Your task to perform on an android device: Open accessibility settings Image 0: 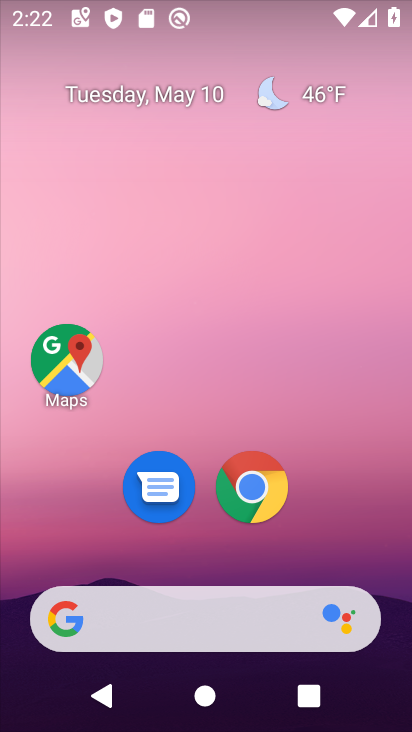
Step 0: drag from (384, 494) to (282, 53)
Your task to perform on an android device: Open accessibility settings Image 1: 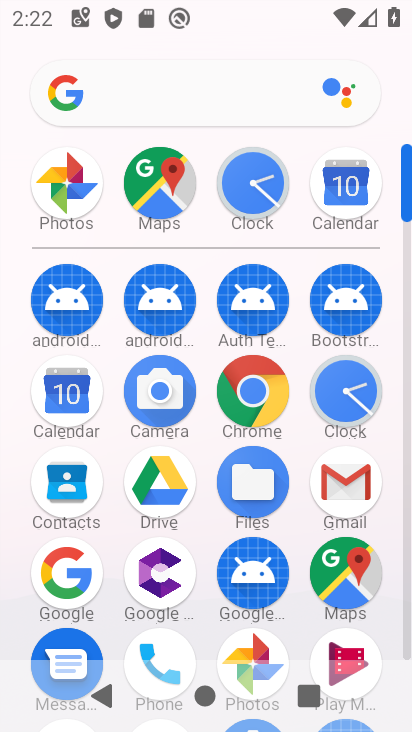
Step 1: drag from (205, 606) to (199, 201)
Your task to perform on an android device: Open accessibility settings Image 2: 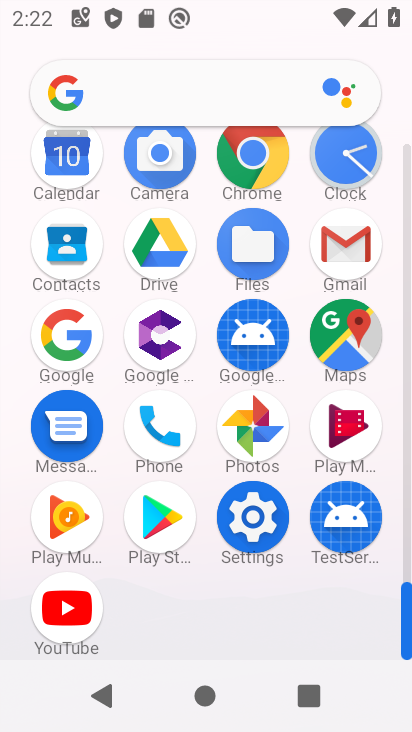
Step 2: click (256, 537)
Your task to perform on an android device: Open accessibility settings Image 3: 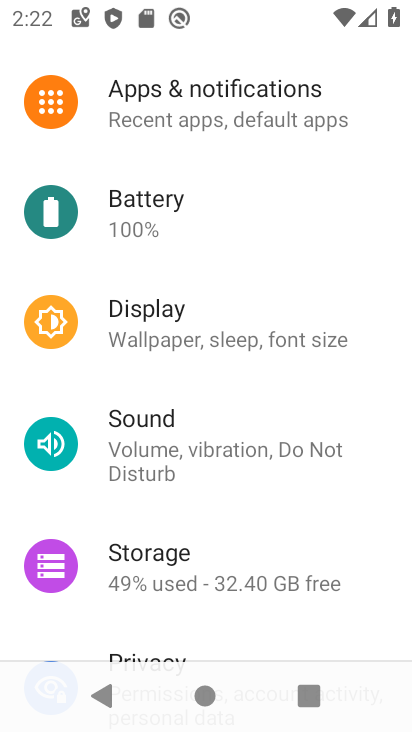
Step 3: drag from (259, 482) to (266, 38)
Your task to perform on an android device: Open accessibility settings Image 4: 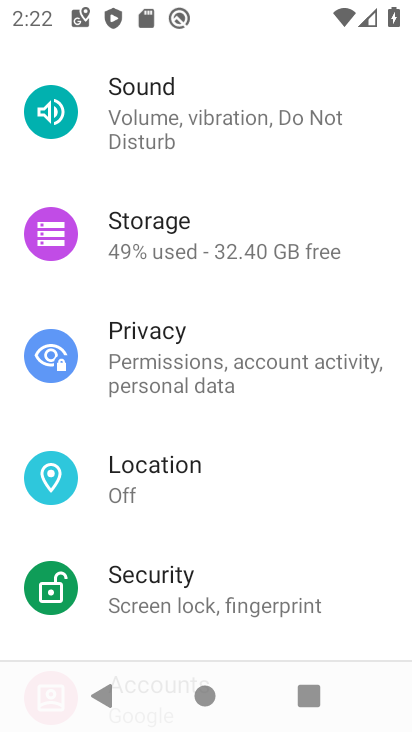
Step 4: drag from (298, 437) to (289, 59)
Your task to perform on an android device: Open accessibility settings Image 5: 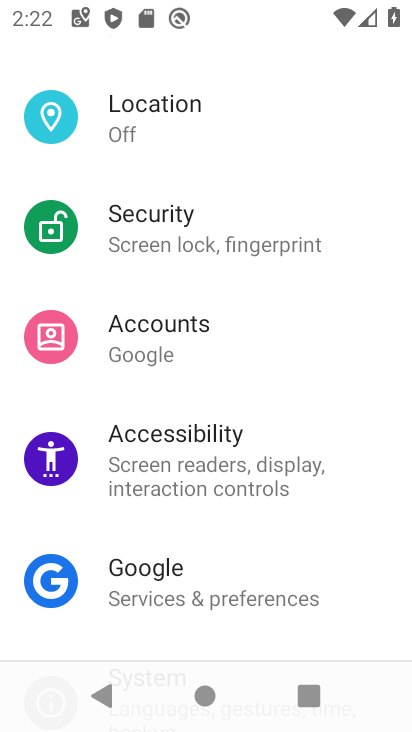
Step 5: click (187, 465)
Your task to perform on an android device: Open accessibility settings Image 6: 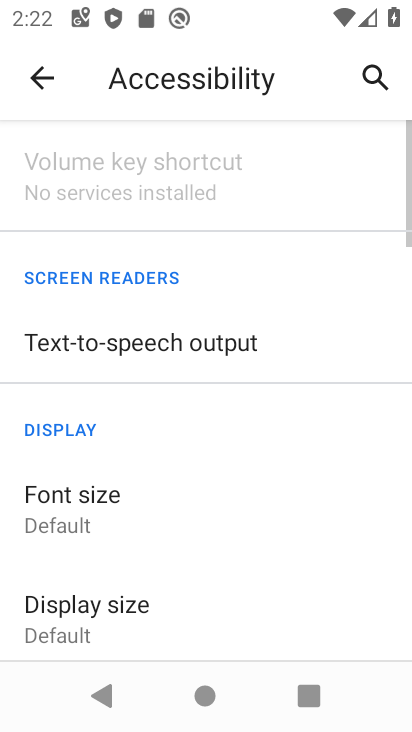
Step 6: task complete